Your task to perform on an android device: Search for pizza restaurants on Maps Image 0: 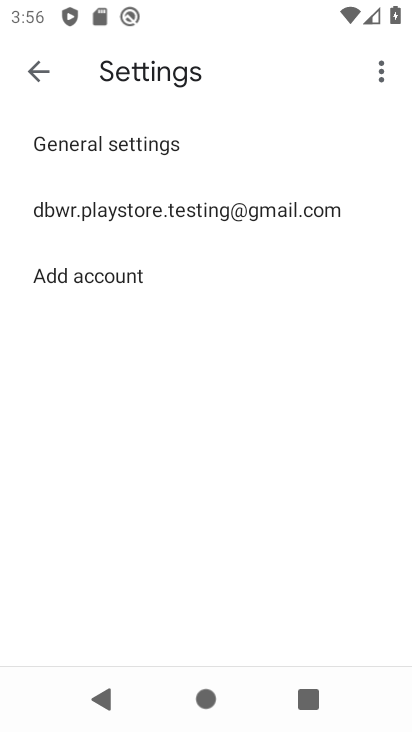
Step 0: press home button
Your task to perform on an android device: Search for pizza restaurants on Maps Image 1: 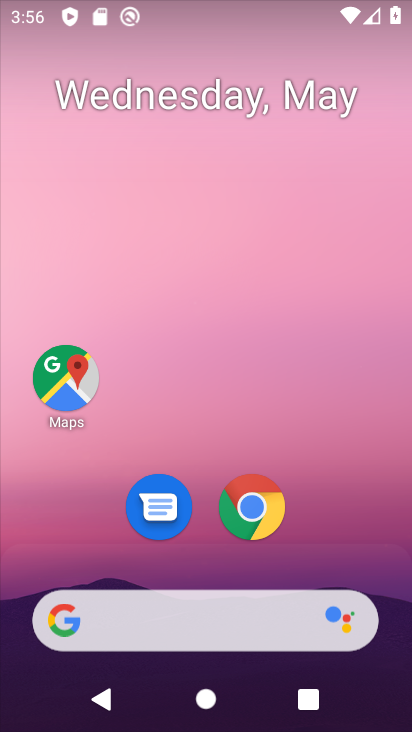
Step 1: click (75, 388)
Your task to perform on an android device: Search for pizza restaurants on Maps Image 2: 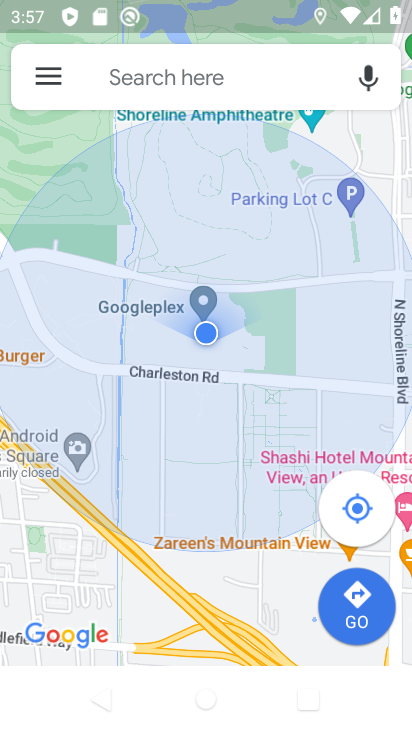
Step 2: click (224, 83)
Your task to perform on an android device: Search for pizza restaurants on Maps Image 3: 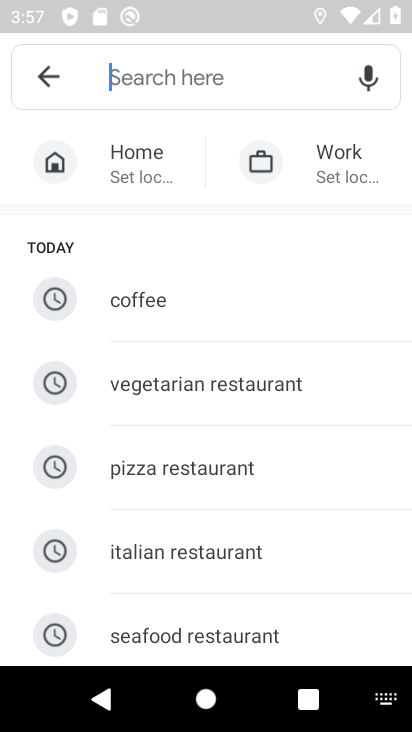
Step 3: drag from (288, 559) to (314, 396)
Your task to perform on an android device: Search for pizza restaurants on Maps Image 4: 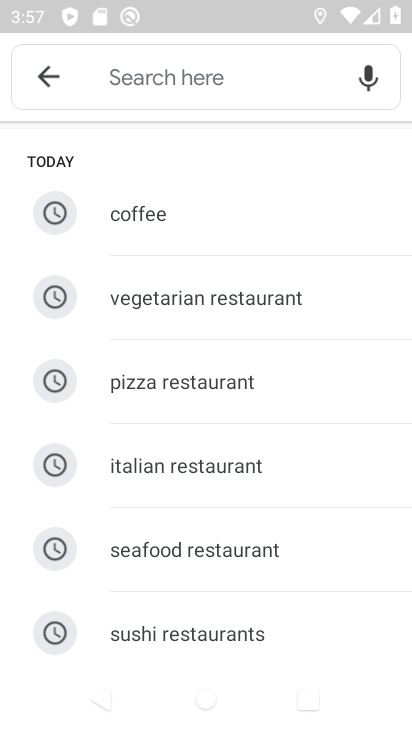
Step 4: click (290, 384)
Your task to perform on an android device: Search for pizza restaurants on Maps Image 5: 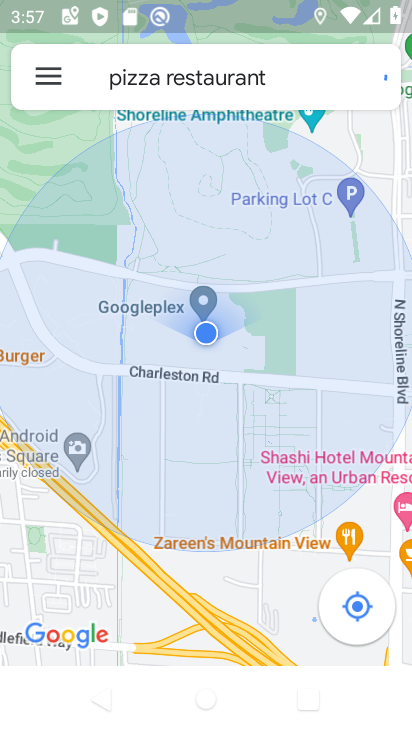
Step 5: task complete